Your task to perform on an android device: turn on airplane mode Image 0: 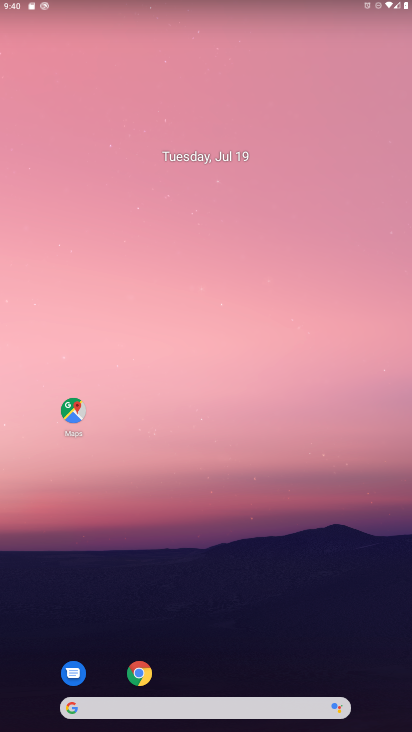
Step 0: drag from (373, 658) to (302, 123)
Your task to perform on an android device: turn on airplane mode Image 1: 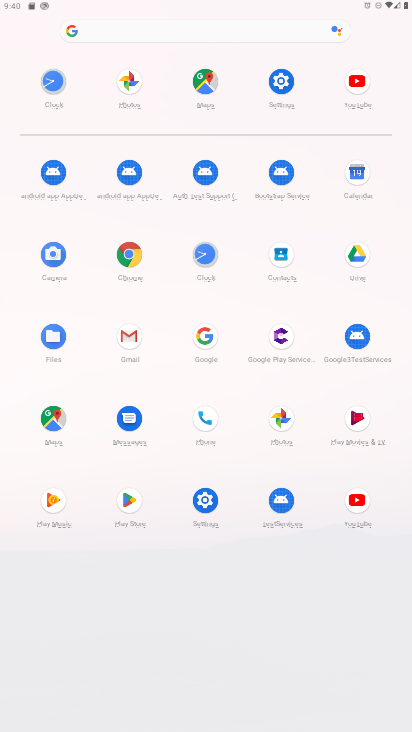
Step 1: click (206, 501)
Your task to perform on an android device: turn on airplane mode Image 2: 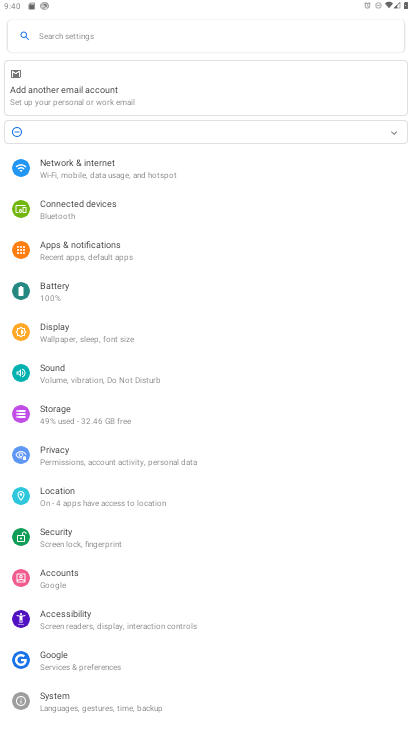
Step 2: click (74, 164)
Your task to perform on an android device: turn on airplane mode Image 3: 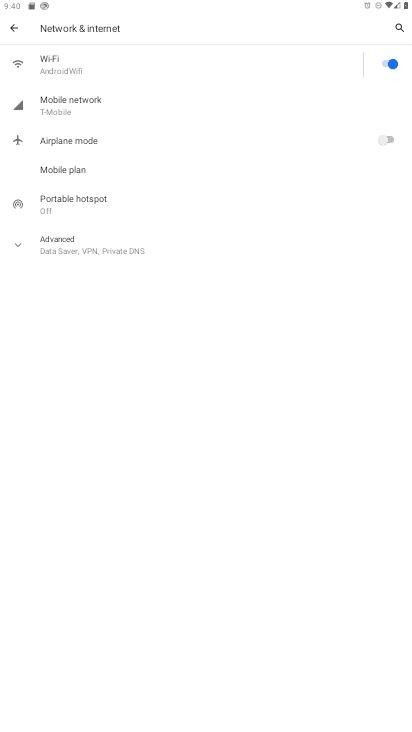
Step 3: click (389, 135)
Your task to perform on an android device: turn on airplane mode Image 4: 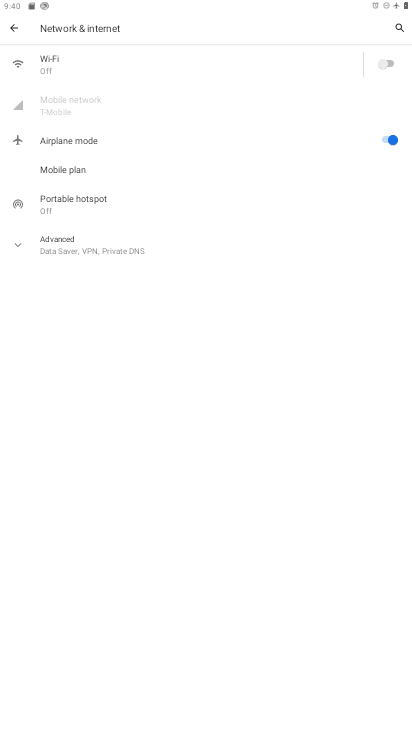
Step 4: task complete